Your task to perform on an android device: remove spam from my inbox in the gmail app Image 0: 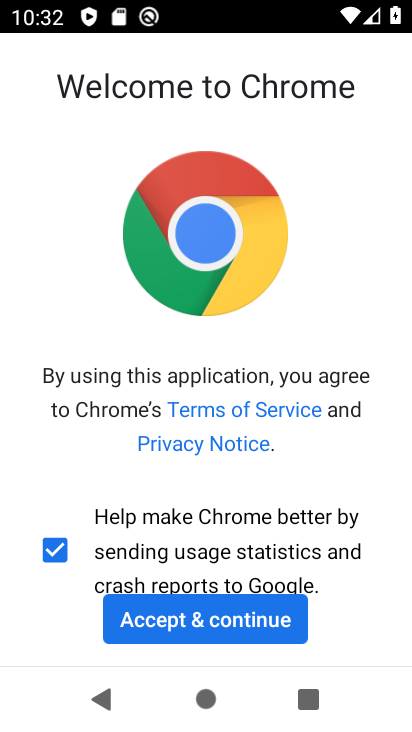
Step 0: click (207, 613)
Your task to perform on an android device: remove spam from my inbox in the gmail app Image 1: 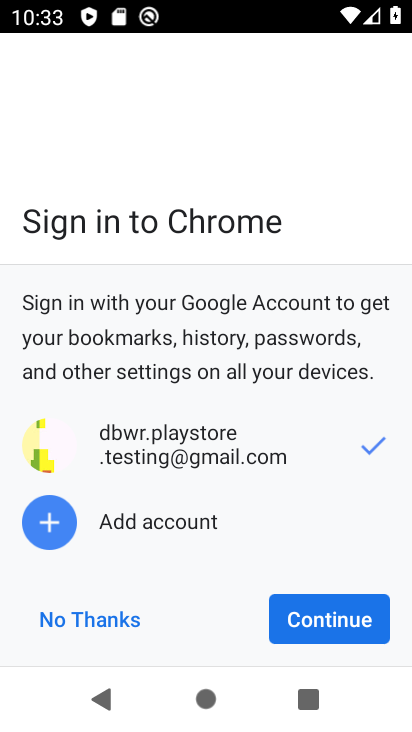
Step 1: click (315, 613)
Your task to perform on an android device: remove spam from my inbox in the gmail app Image 2: 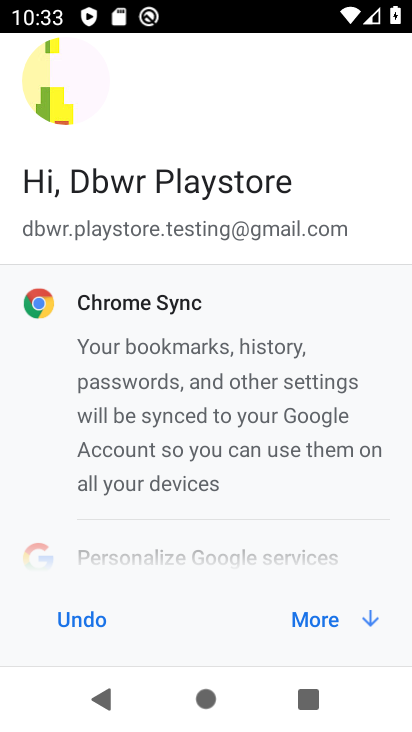
Step 2: click (372, 626)
Your task to perform on an android device: remove spam from my inbox in the gmail app Image 3: 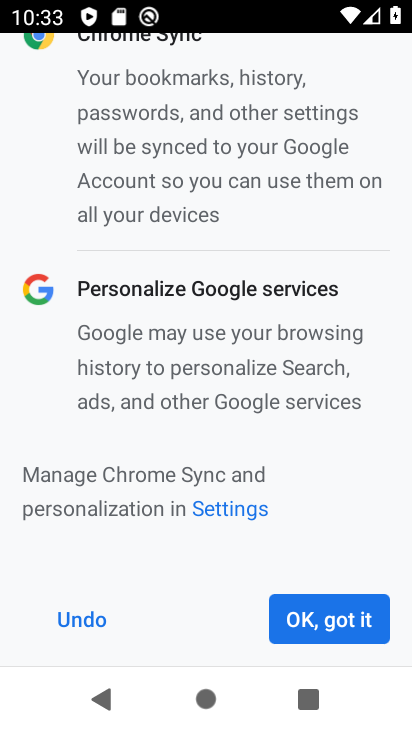
Step 3: click (372, 626)
Your task to perform on an android device: remove spam from my inbox in the gmail app Image 4: 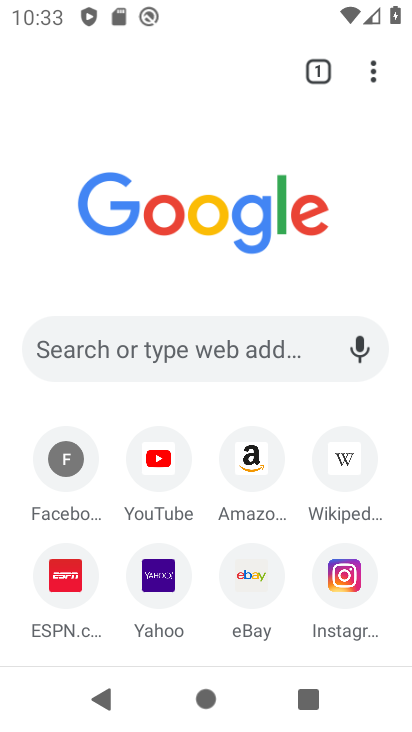
Step 4: press home button
Your task to perform on an android device: remove spam from my inbox in the gmail app Image 5: 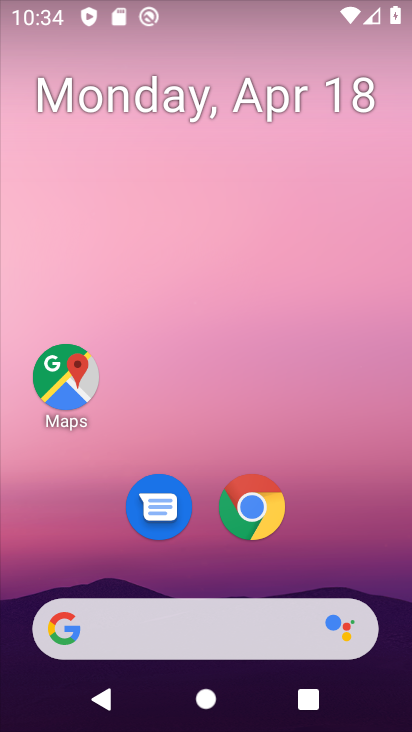
Step 5: drag from (280, 666) to (268, 202)
Your task to perform on an android device: remove spam from my inbox in the gmail app Image 6: 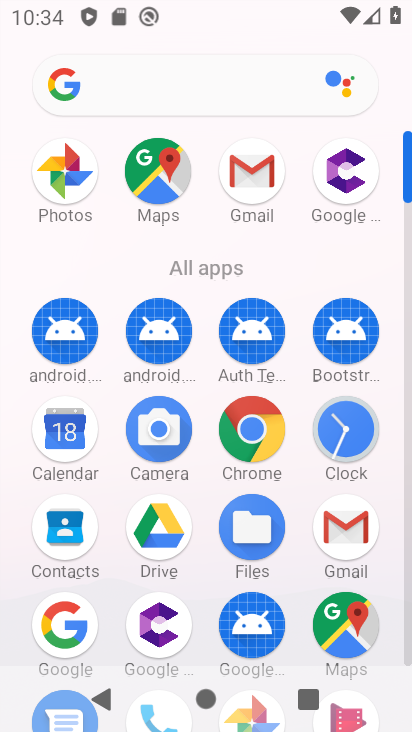
Step 6: click (264, 197)
Your task to perform on an android device: remove spam from my inbox in the gmail app Image 7: 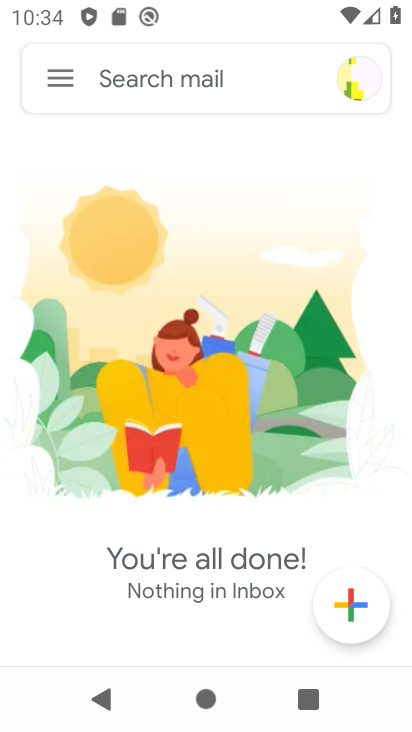
Step 7: click (61, 88)
Your task to perform on an android device: remove spam from my inbox in the gmail app Image 8: 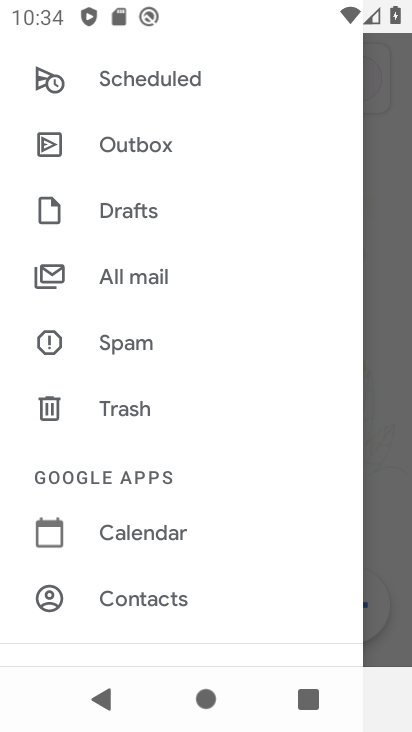
Step 8: click (102, 333)
Your task to perform on an android device: remove spam from my inbox in the gmail app Image 9: 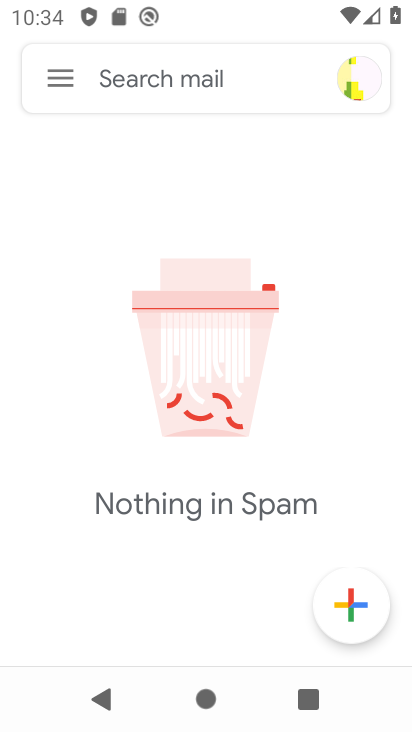
Step 9: click (57, 79)
Your task to perform on an android device: remove spam from my inbox in the gmail app Image 10: 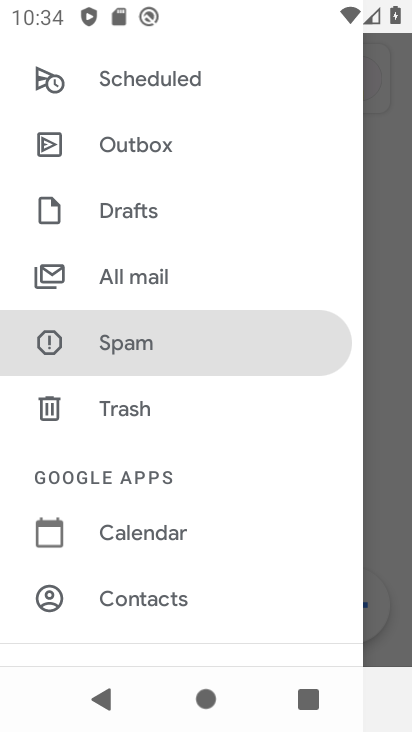
Step 10: click (164, 350)
Your task to perform on an android device: remove spam from my inbox in the gmail app Image 11: 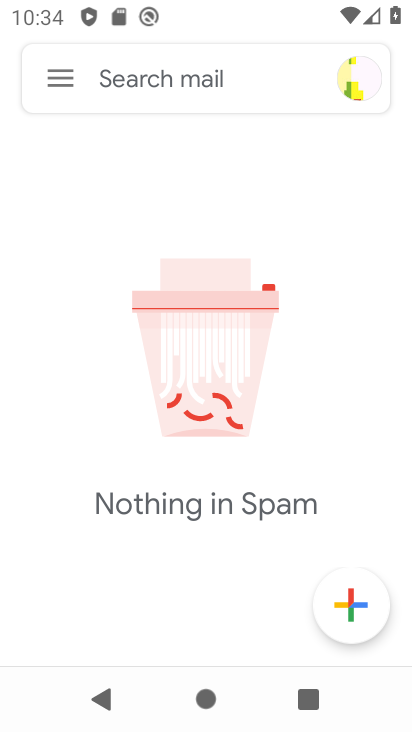
Step 11: task complete